Your task to perform on an android device: turn notification dots off Image 0: 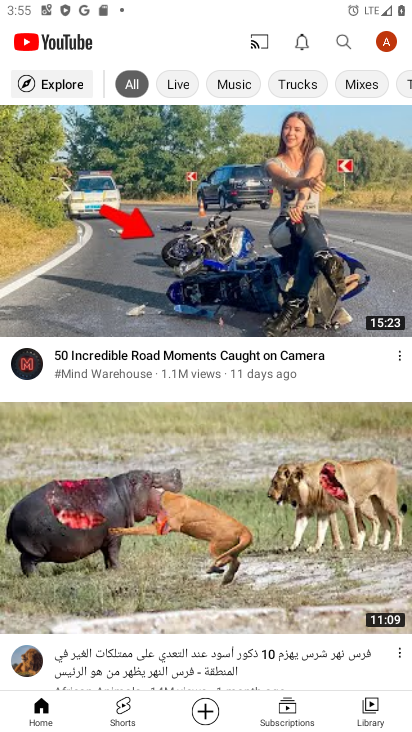
Step 0: press home button
Your task to perform on an android device: turn notification dots off Image 1: 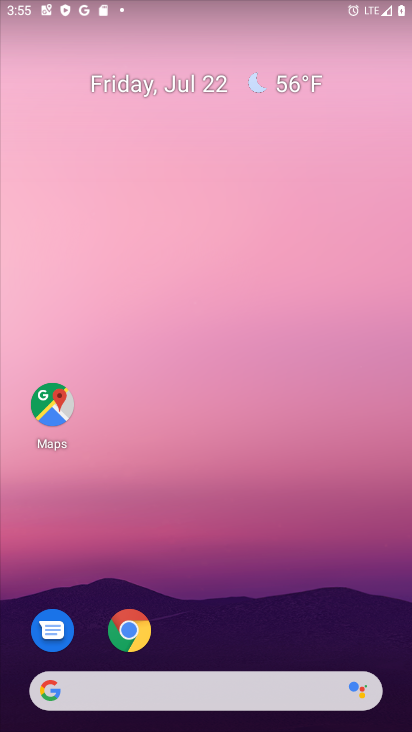
Step 1: drag from (183, 692) to (309, 8)
Your task to perform on an android device: turn notification dots off Image 2: 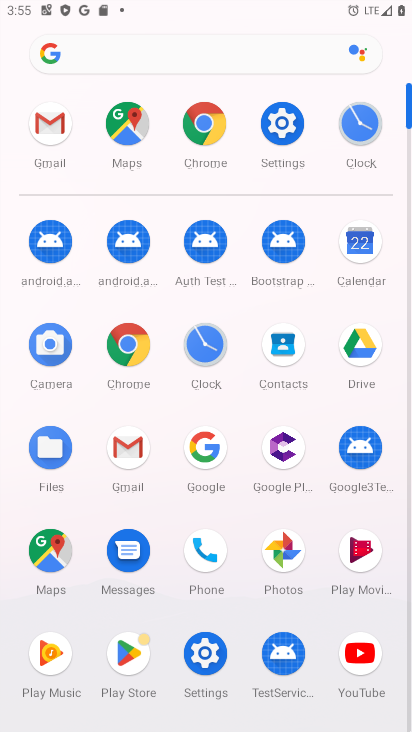
Step 2: click (286, 112)
Your task to perform on an android device: turn notification dots off Image 3: 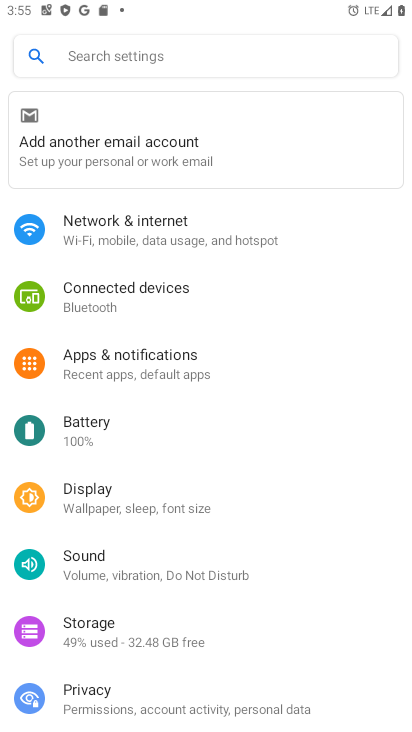
Step 3: click (158, 359)
Your task to perform on an android device: turn notification dots off Image 4: 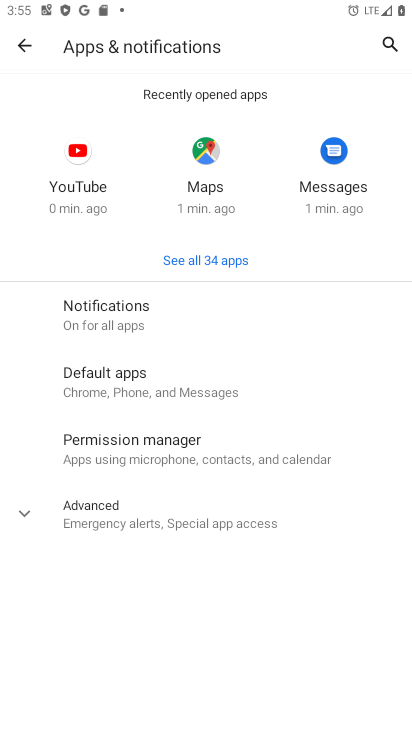
Step 4: click (130, 318)
Your task to perform on an android device: turn notification dots off Image 5: 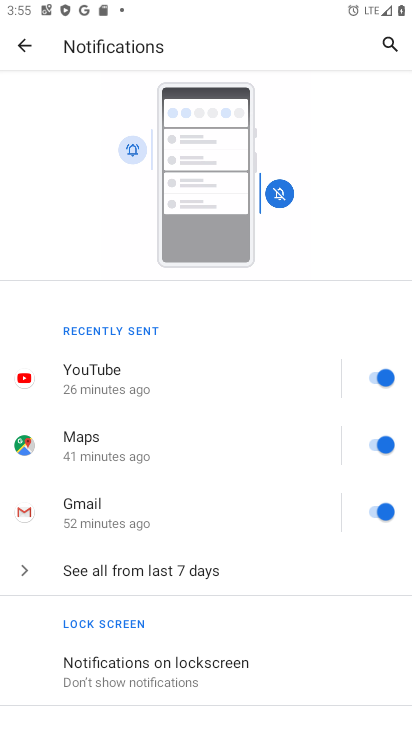
Step 5: drag from (172, 675) to (121, 141)
Your task to perform on an android device: turn notification dots off Image 6: 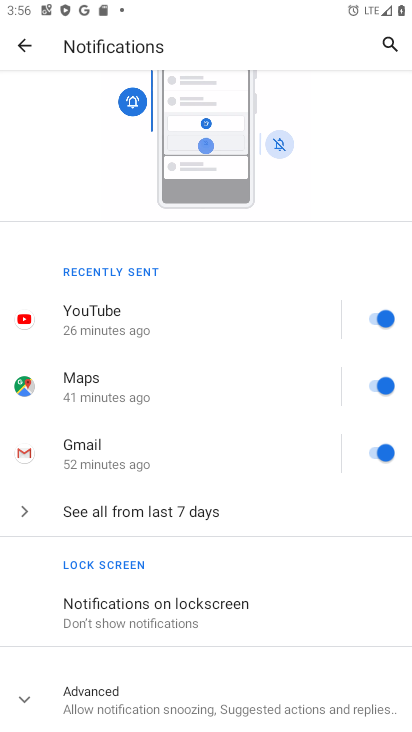
Step 6: click (138, 677)
Your task to perform on an android device: turn notification dots off Image 7: 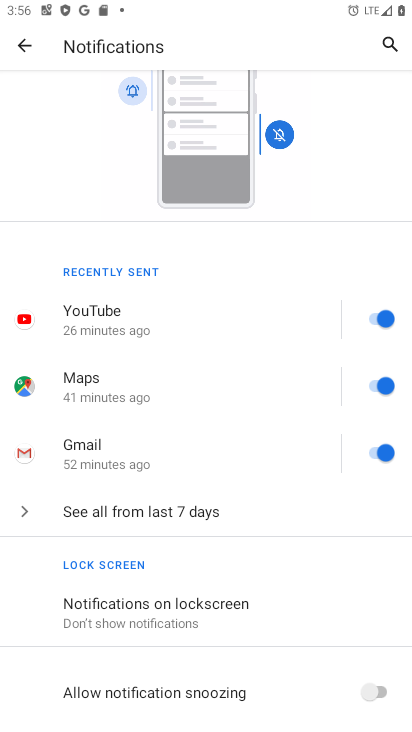
Step 7: drag from (155, 595) to (128, 142)
Your task to perform on an android device: turn notification dots off Image 8: 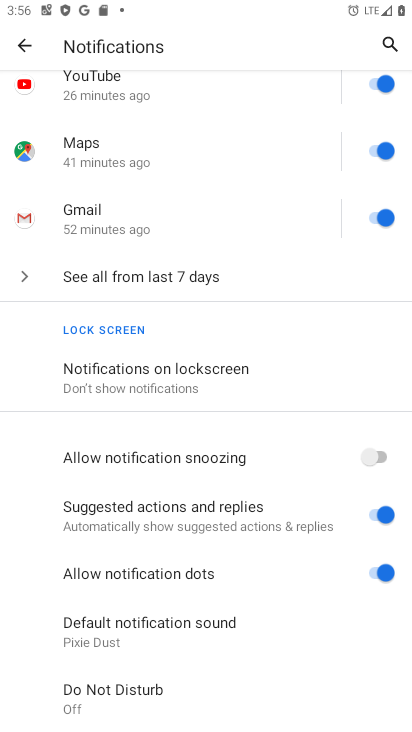
Step 8: drag from (183, 667) to (139, 361)
Your task to perform on an android device: turn notification dots off Image 9: 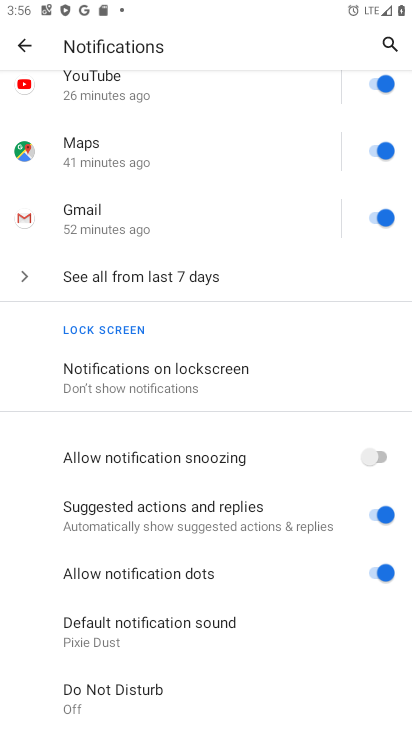
Step 9: click (375, 579)
Your task to perform on an android device: turn notification dots off Image 10: 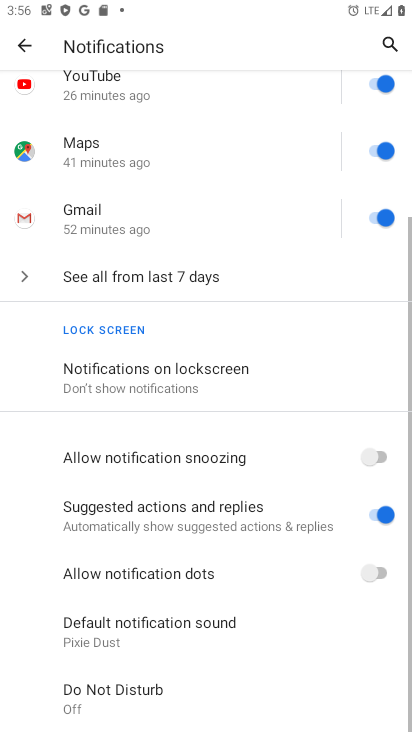
Step 10: task complete